Your task to perform on an android device: see creations saved in the google photos Image 0: 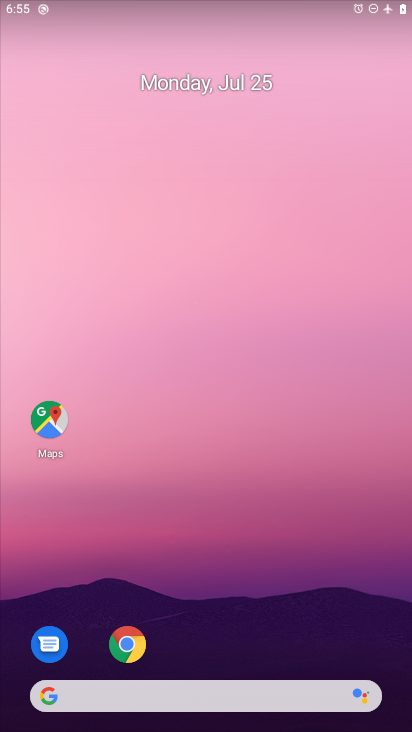
Step 0: press home button
Your task to perform on an android device: see creations saved in the google photos Image 1: 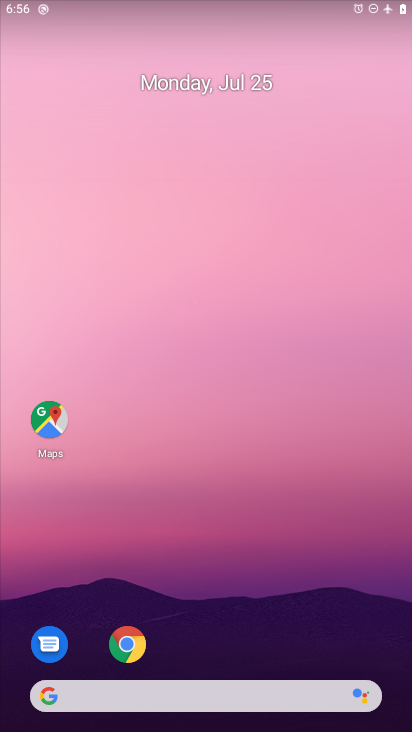
Step 1: drag from (242, 657) to (311, 127)
Your task to perform on an android device: see creations saved in the google photos Image 2: 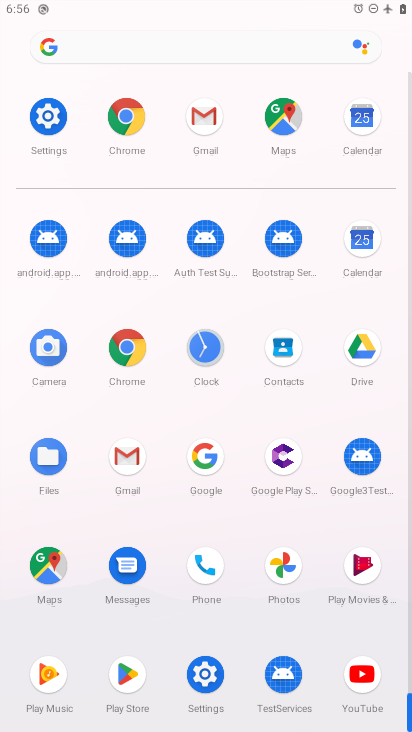
Step 2: click (279, 576)
Your task to perform on an android device: see creations saved in the google photos Image 3: 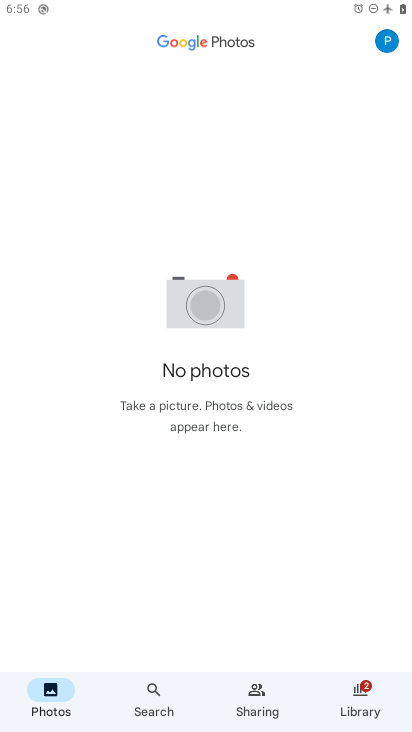
Step 3: click (152, 696)
Your task to perform on an android device: see creations saved in the google photos Image 4: 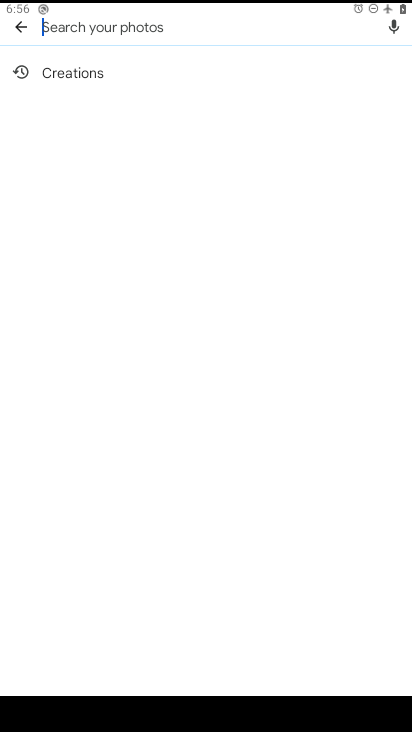
Step 4: click (77, 75)
Your task to perform on an android device: see creations saved in the google photos Image 5: 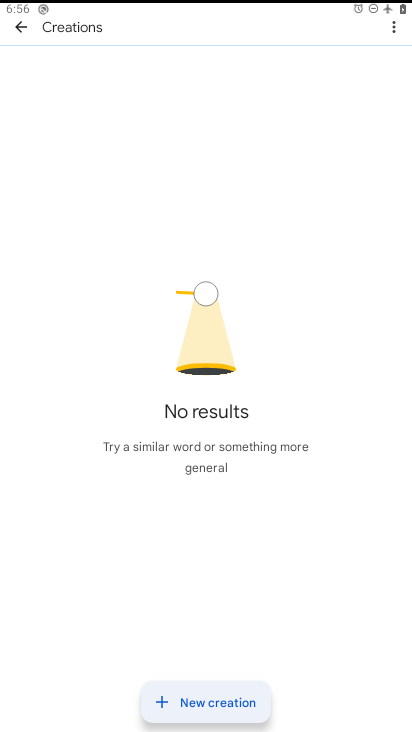
Step 5: task complete